Your task to perform on an android device: turn pop-ups off in chrome Image 0: 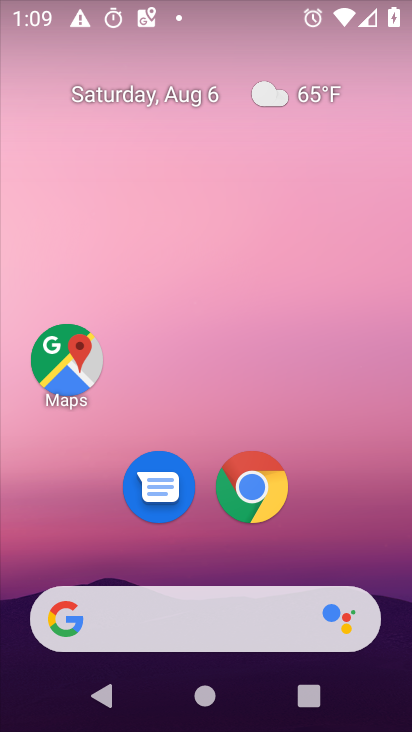
Step 0: click (247, 486)
Your task to perform on an android device: turn pop-ups off in chrome Image 1: 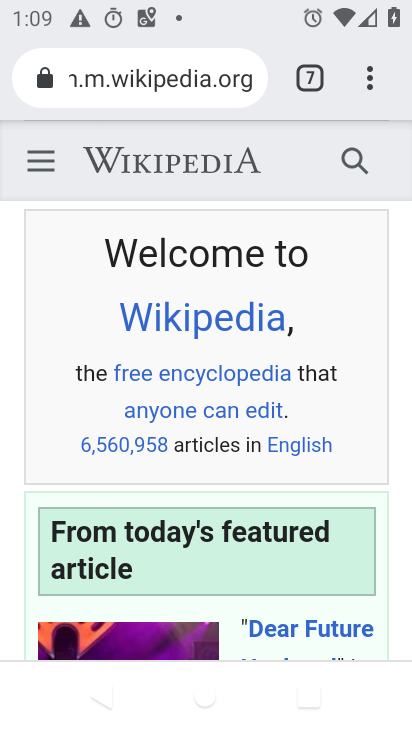
Step 1: drag from (352, 72) to (97, 556)
Your task to perform on an android device: turn pop-ups off in chrome Image 2: 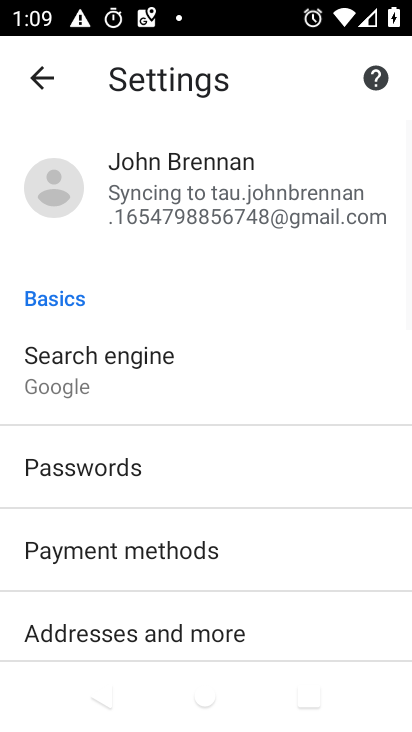
Step 2: drag from (238, 600) to (309, 78)
Your task to perform on an android device: turn pop-ups off in chrome Image 3: 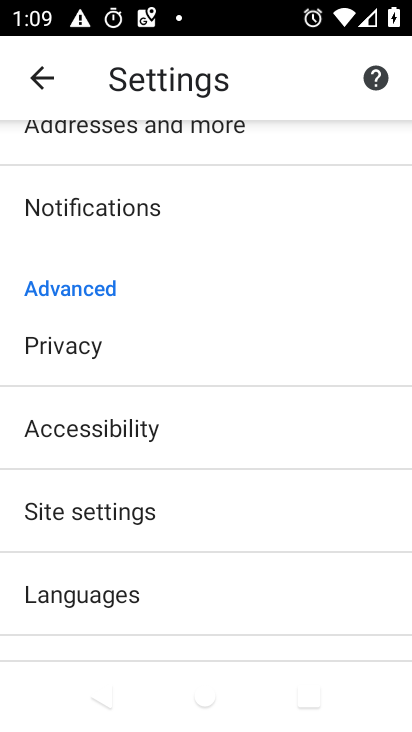
Step 3: click (218, 520)
Your task to perform on an android device: turn pop-ups off in chrome Image 4: 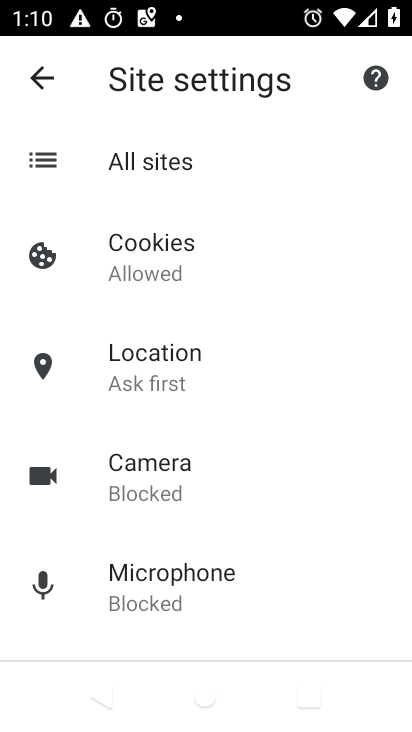
Step 4: drag from (199, 616) to (300, 33)
Your task to perform on an android device: turn pop-ups off in chrome Image 5: 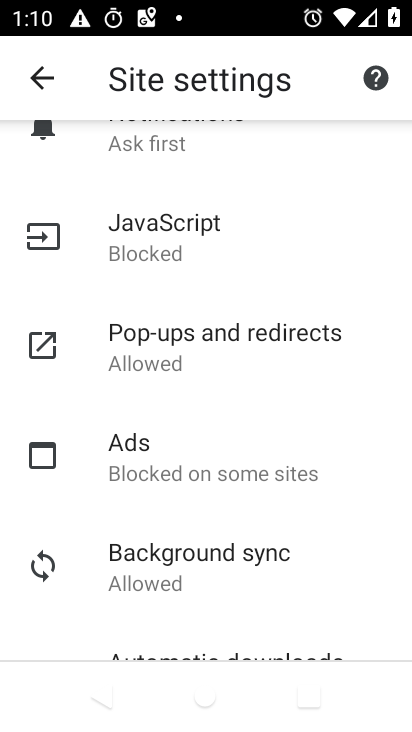
Step 5: click (164, 348)
Your task to perform on an android device: turn pop-ups off in chrome Image 6: 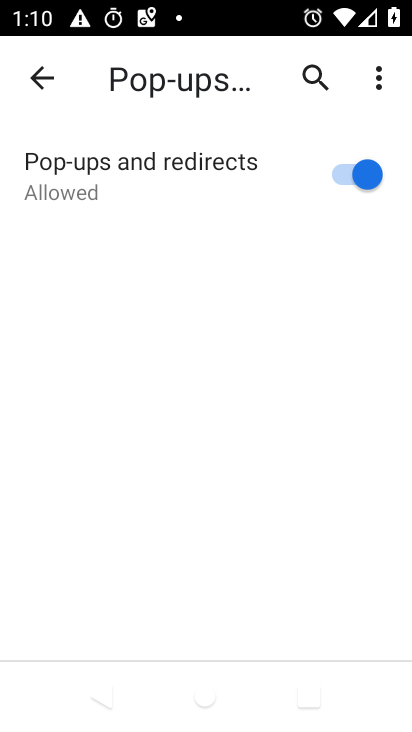
Step 6: click (361, 162)
Your task to perform on an android device: turn pop-ups off in chrome Image 7: 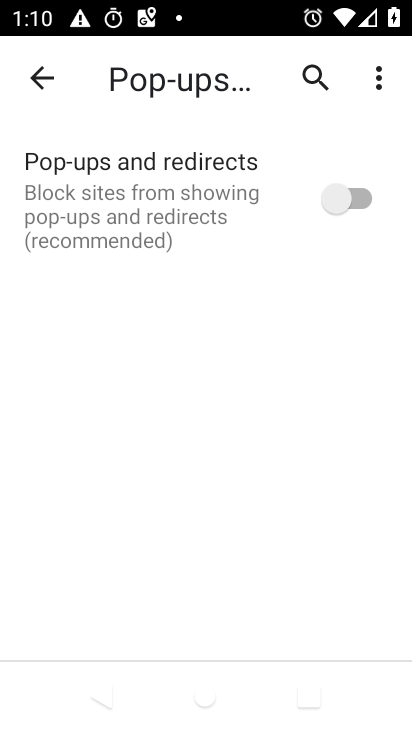
Step 7: task complete